Your task to perform on an android device: open chrome and create a bookmark for the current page Image 0: 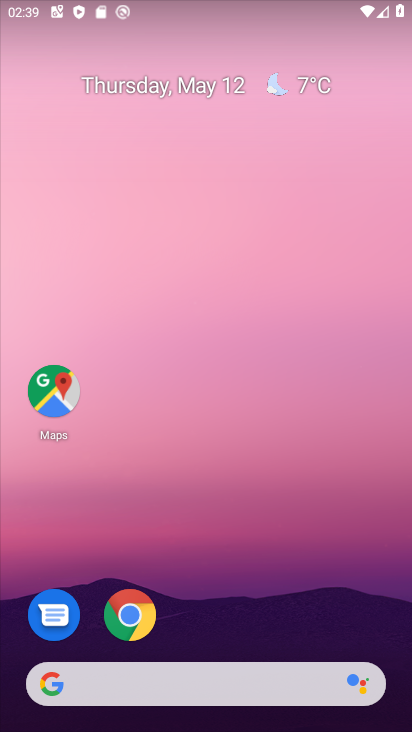
Step 0: click (142, 617)
Your task to perform on an android device: open chrome and create a bookmark for the current page Image 1: 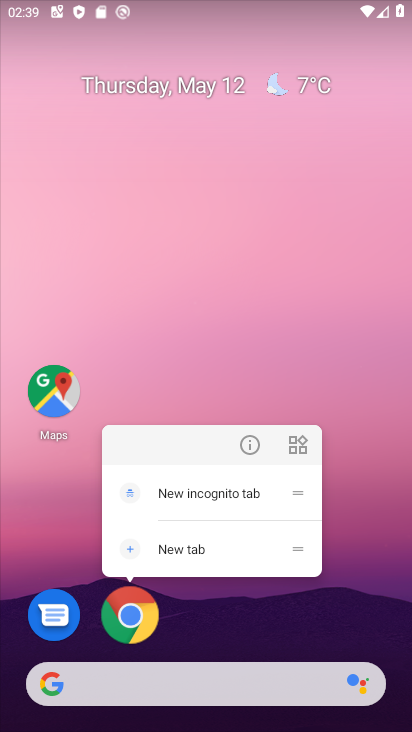
Step 1: click (142, 617)
Your task to perform on an android device: open chrome and create a bookmark for the current page Image 2: 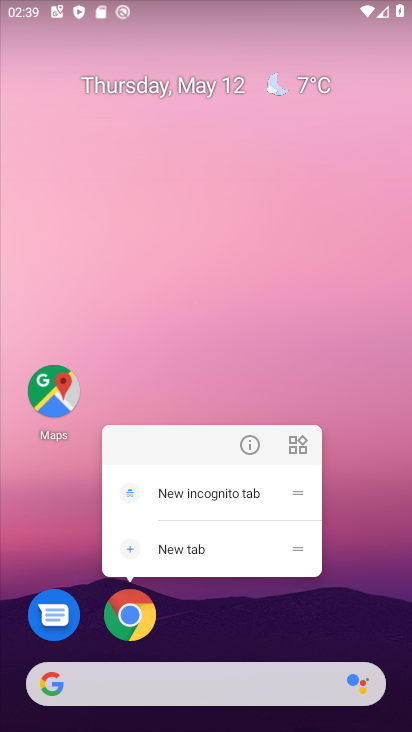
Step 2: click (141, 617)
Your task to perform on an android device: open chrome and create a bookmark for the current page Image 3: 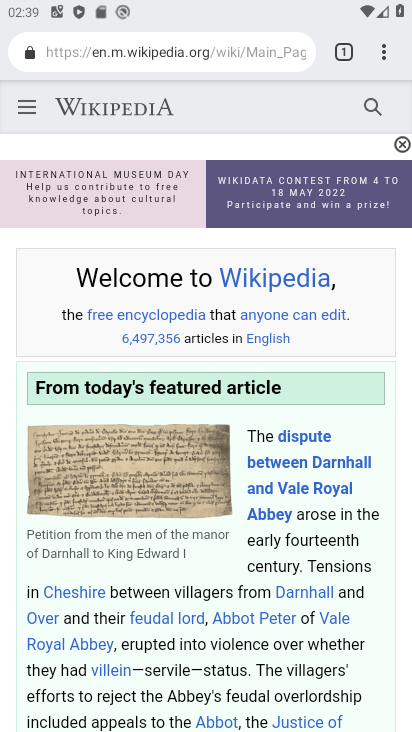
Step 3: click (380, 60)
Your task to perform on an android device: open chrome and create a bookmark for the current page Image 4: 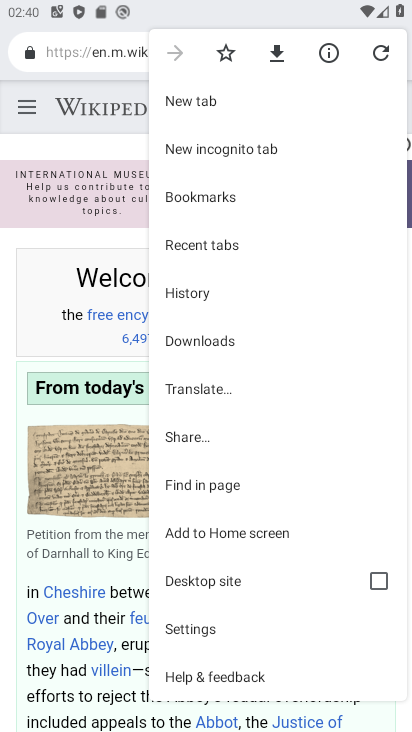
Step 4: click (220, 48)
Your task to perform on an android device: open chrome and create a bookmark for the current page Image 5: 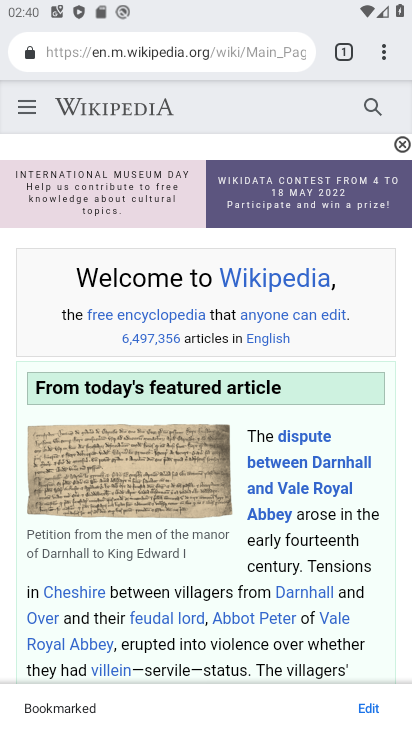
Step 5: task complete